Your task to perform on an android device: clear all cookies in the chrome app Image 0: 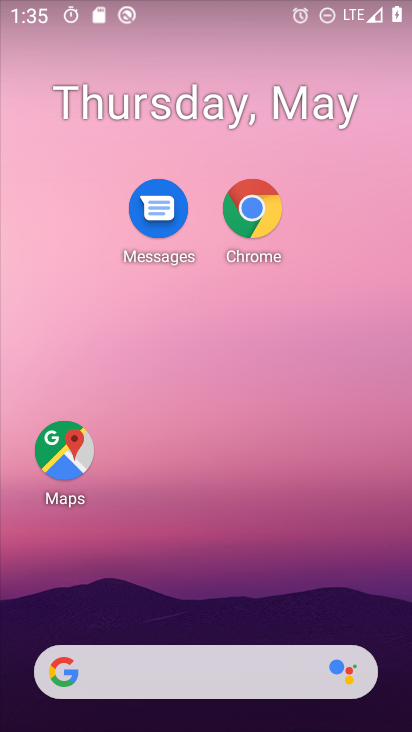
Step 0: click (250, 206)
Your task to perform on an android device: clear all cookies in the chrome app Image 1: 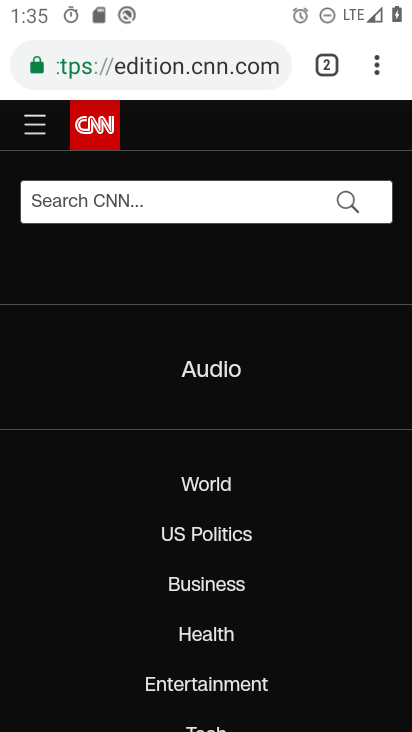
Step 1: click (379, 68)
Your task to perform on an android device: clear all cookies in the chrome app Image 2: 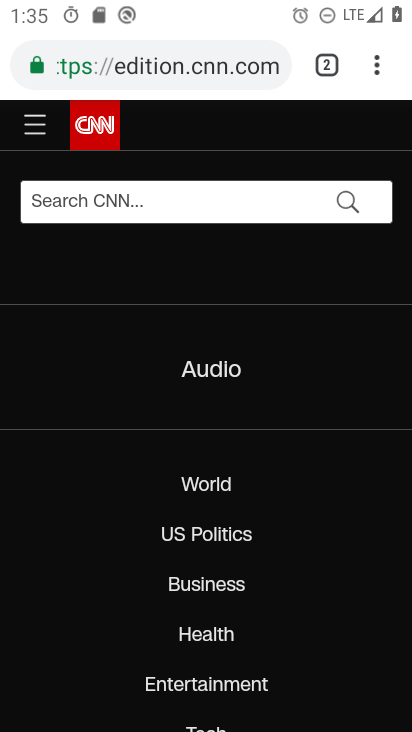
Step 2: click (375, 72)
Your task to perform on an android device: clear all cookies in the chrome app Image 3: 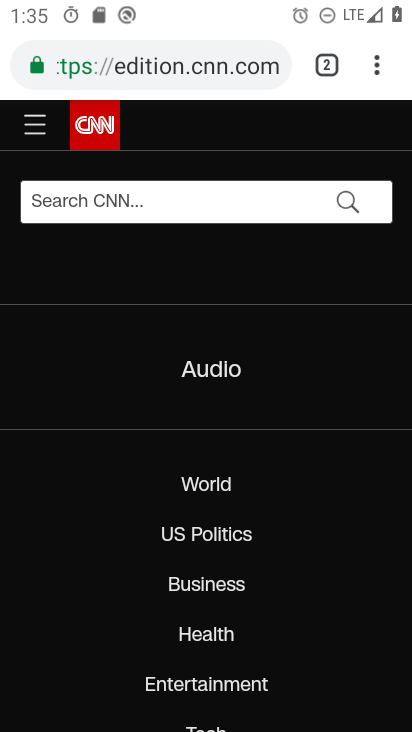
Step 3: click (371, 67)
Your task to perform on an android device: clear all cookies in the chrome app Image 4: 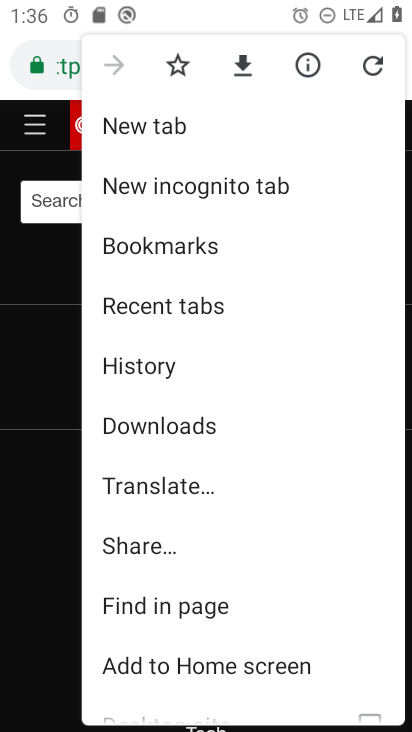
Step 4: drag from (186, 629) to (226, 342)
Your task to perform on an android device: clear all cookies in the chrome app Image 5: 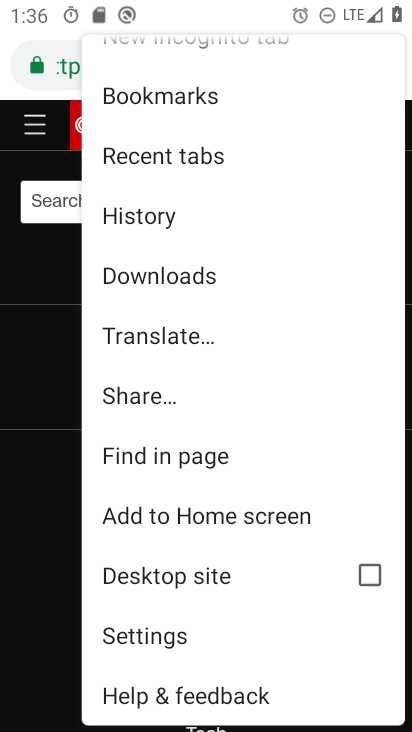
Step 5: click (146, 232)
Your task to perform on an android device: clear all cookies in the chrome app Image 6: 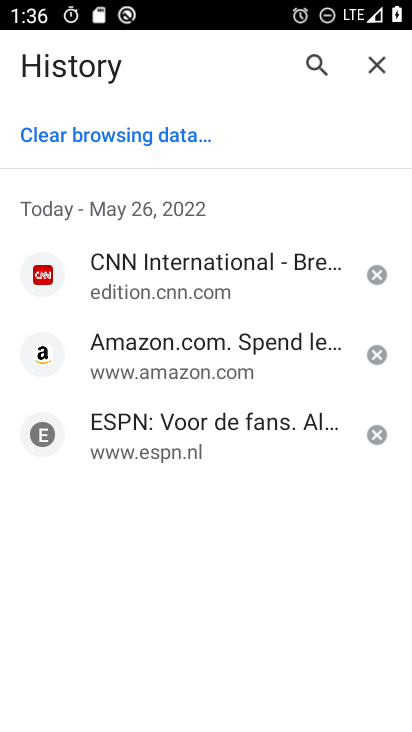
Step 6: click (161, 139)
Your task to perform on an android device: clear all cookies in the chrome app Image 7: 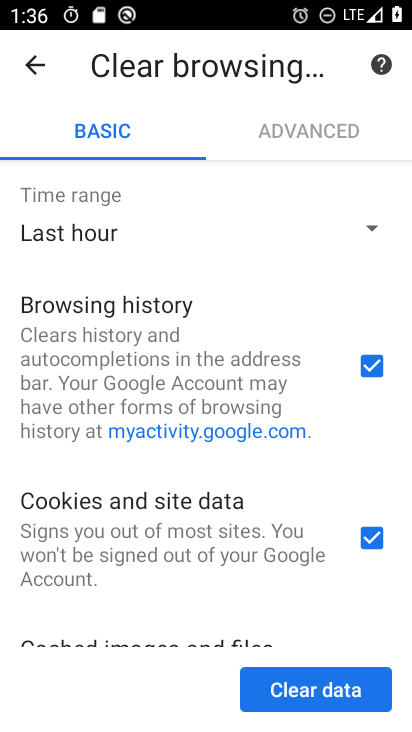
Step 7: click (361, 374)
Your task to perform on an android device: clear all cookies in the chrome app Image 8: 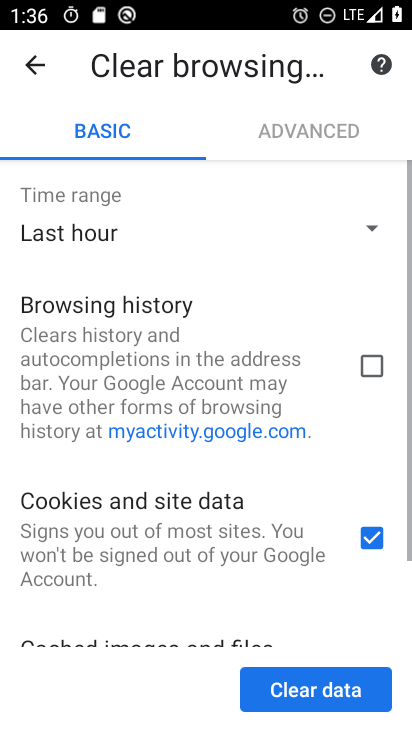
Step 8: drag from (234, 542) to (214, 258)
Your task to perform on an android device: clear all cookies in the chrome app Image 9: 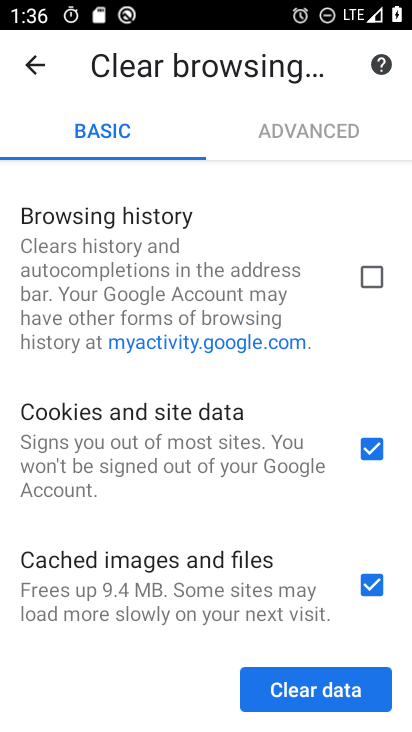
Step 9: click (373, 586)
Your task to perform on an android device: clear all cookies in the chrome app Image 10: 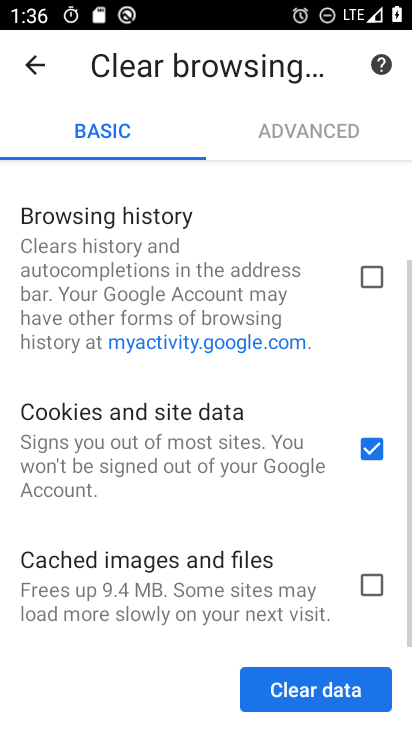
Step 10: click (301, 686)
Your task to perform on an android device: clear all cookies in the chrome app Image 11: 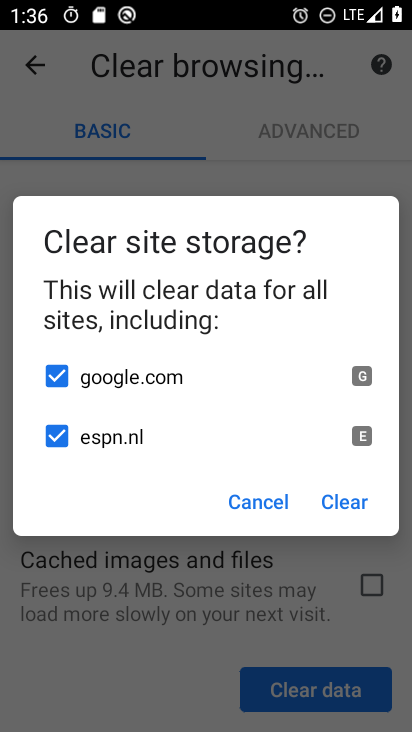
Step 11: click (331, 495)
Your task to perform on an android device: clear all cookies in the chrome app Image 12: 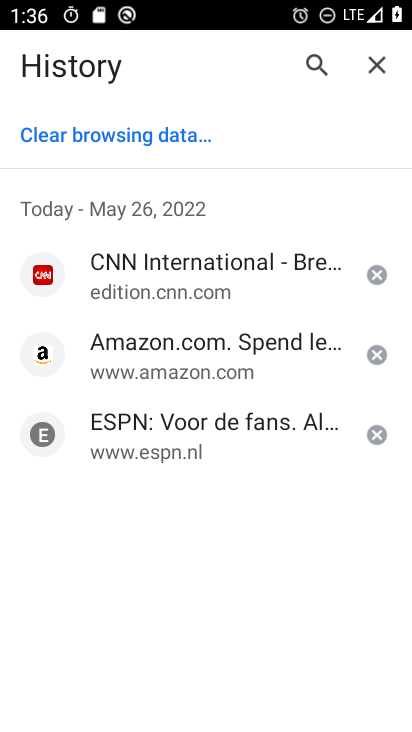
Step 12: task complete